Your task to perform on an android device: Open notification settings Image 0: 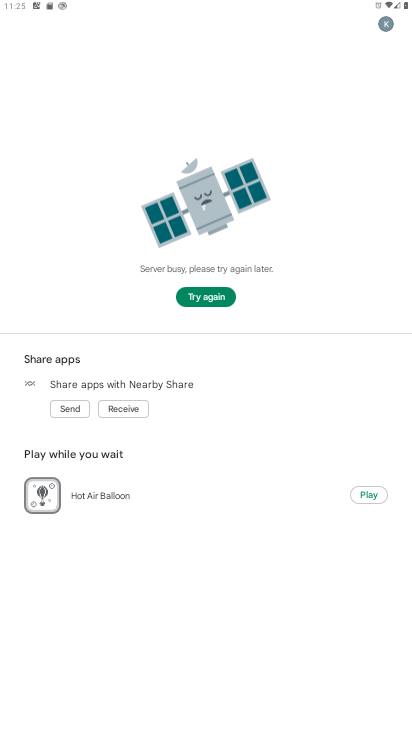
Step 0: press home button
Your task to perform on an android device: Open notification settings Image 1: 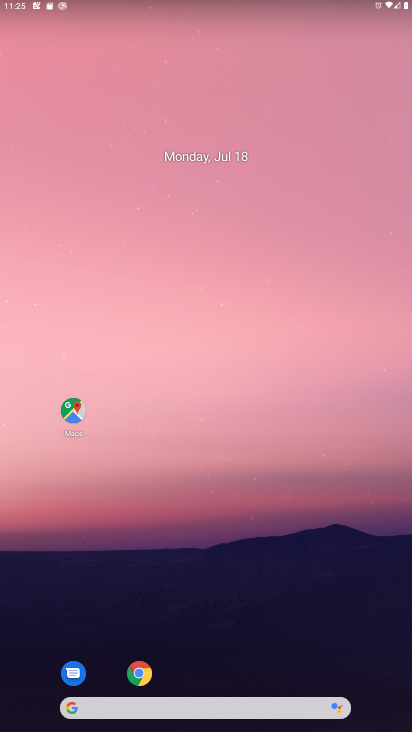
Step 1: drag from (227, 663) to (216, 123)
Your task to perform on an android device: Open notification settings Image 2: 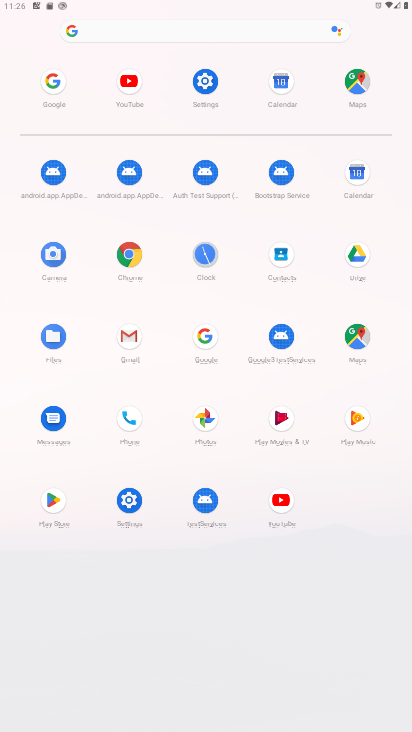
Step 2: click (194, 88)
Your task to perform on an android device: Open notification settings Image 3: 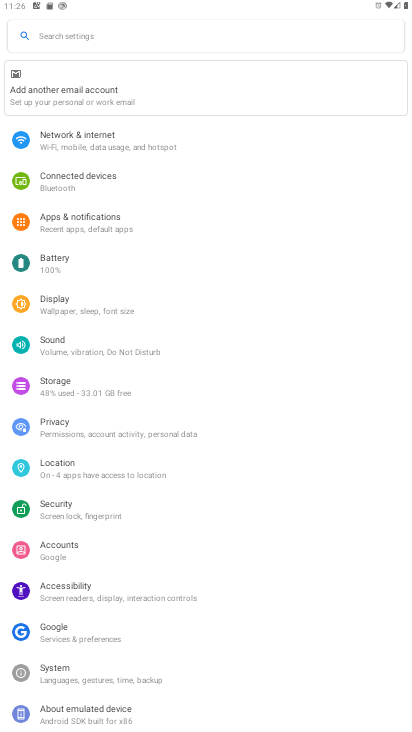
Step 3: click (126, 225)
Your task to perform on an android device: Open notification settings Image 4: 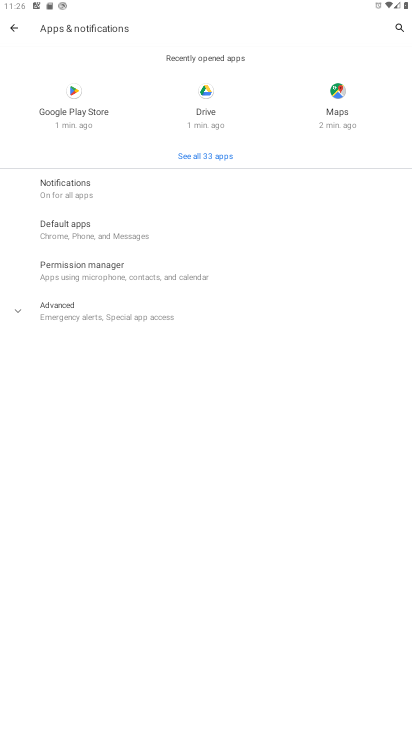
Step 4: click (126, 196)
Your task to perform on an android device: Open notification settings Image 5: 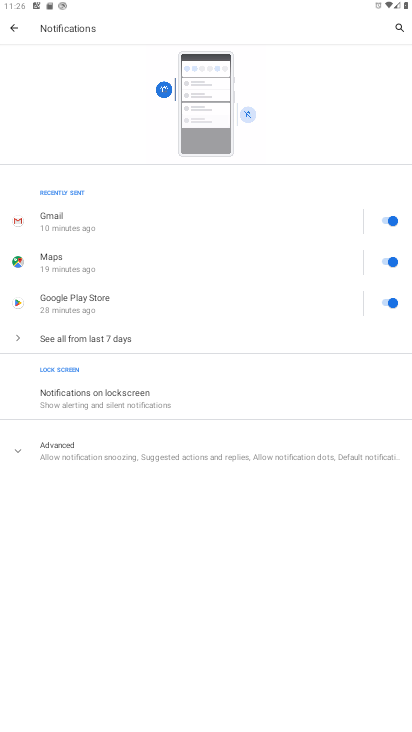
Step 5: task complete